Your task to perform on an android device: Open network settings Image 0: 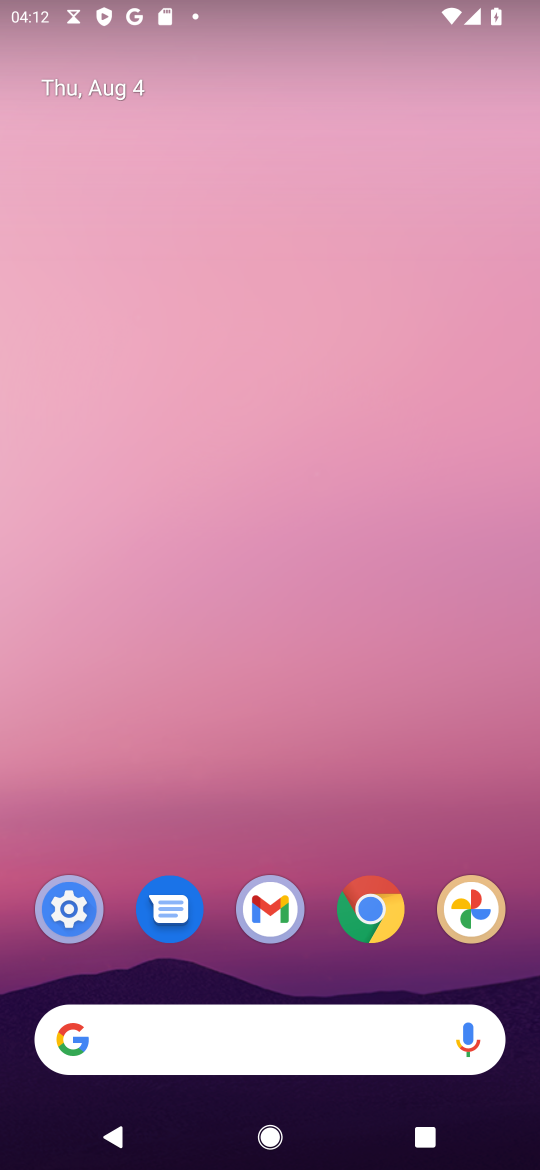
Step 0: click (72, 898)
Your task to perform on an android device: Open network settings Image 1: 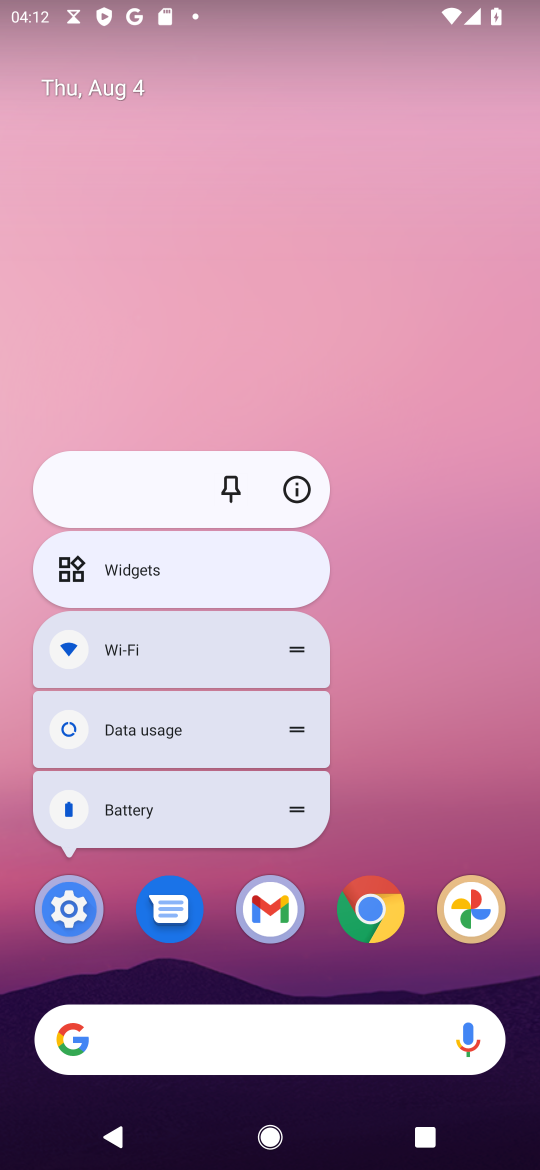
Step 1: click (63, 914)
Your task to perform on an android device: Open network settings Image 2: 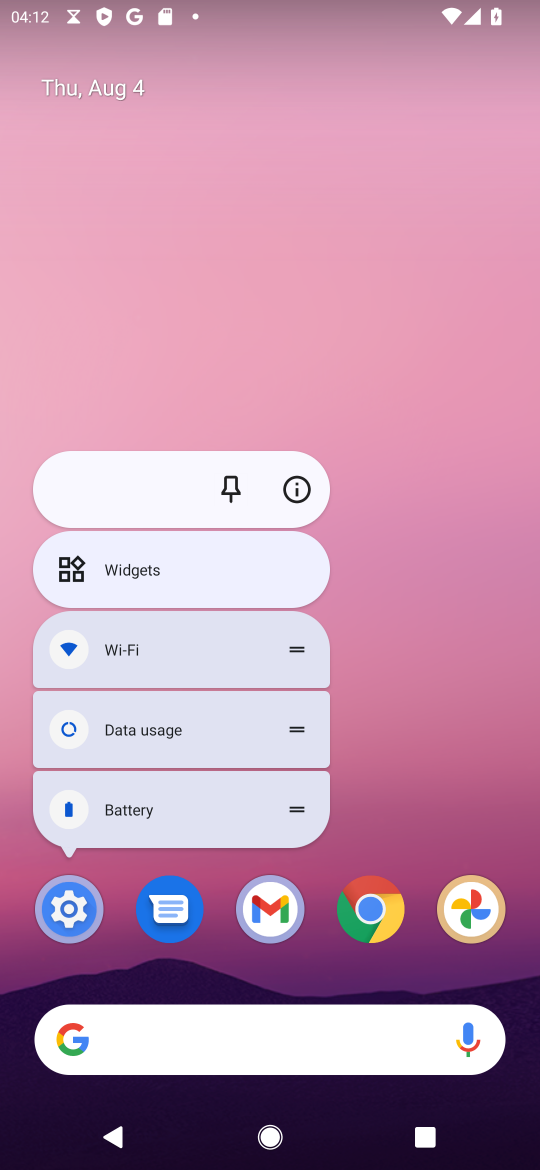
Step 2: click (63, 914)
Your task to perform on an android device: Open network settings Image 3: 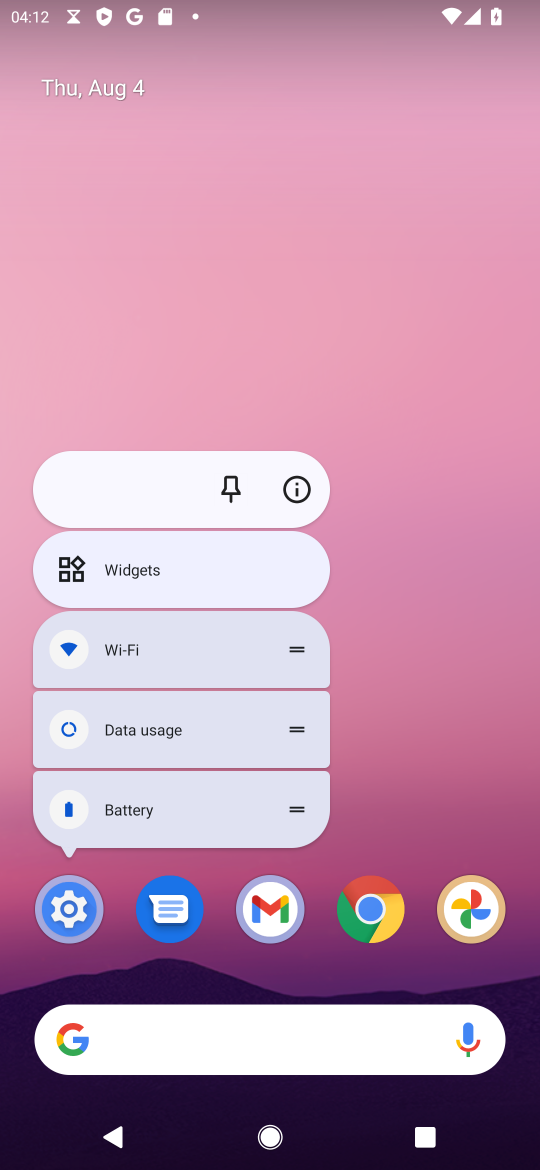
Step 3: click (58, 912)
Your task to perform on an android device: Open network settings Image 4: 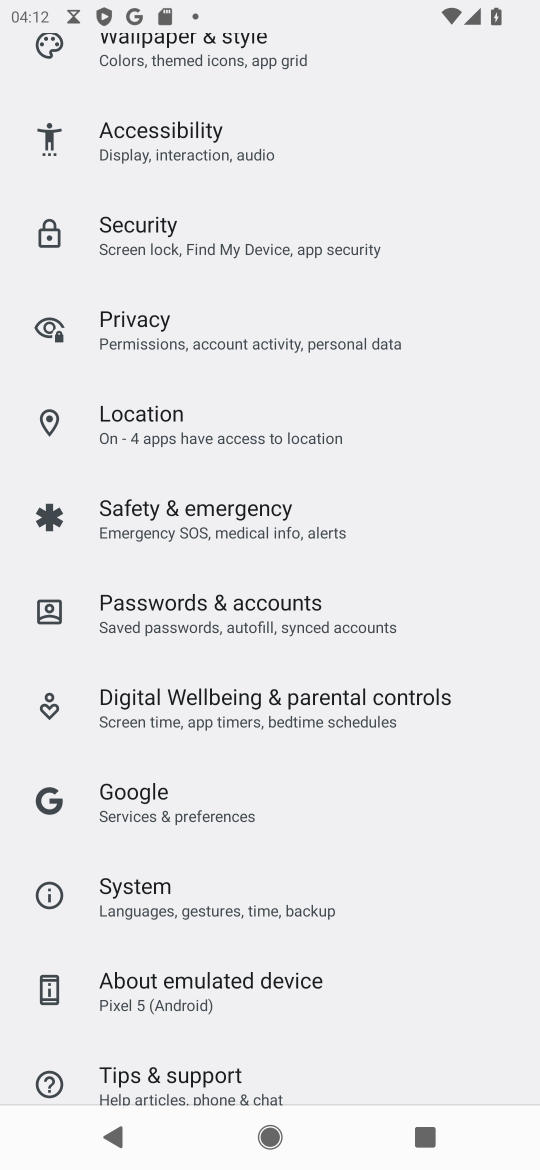
Step 4: drag from (408, 270) to (317, 1099)
Your task to perform on an android device: Open network settings Image 5: 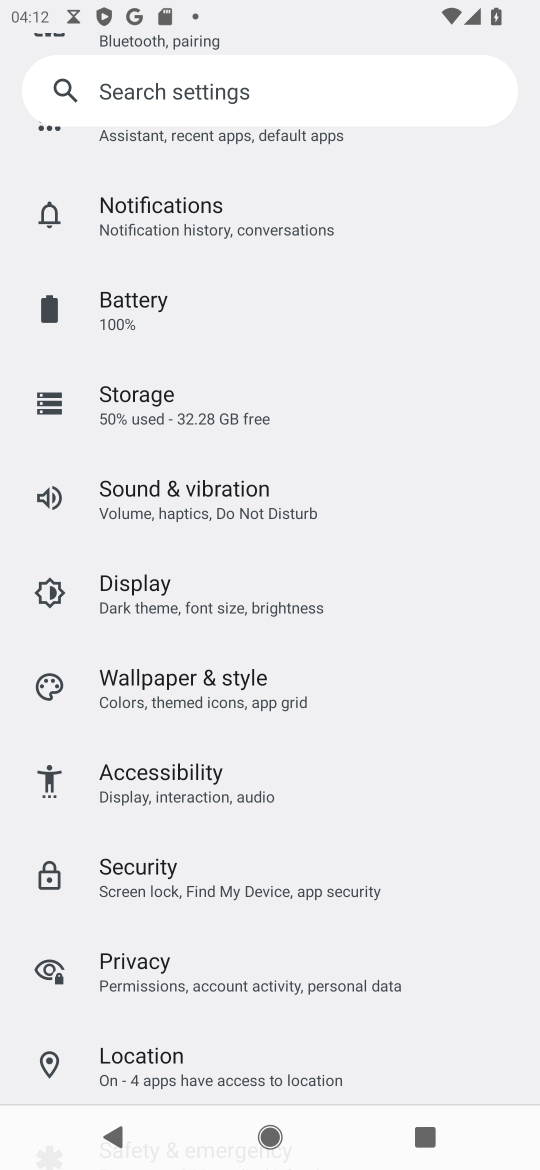
Step 5: drag from (307, 283) to (234, 1050)
Your task to perform on an android device: Open network settings Image 6: 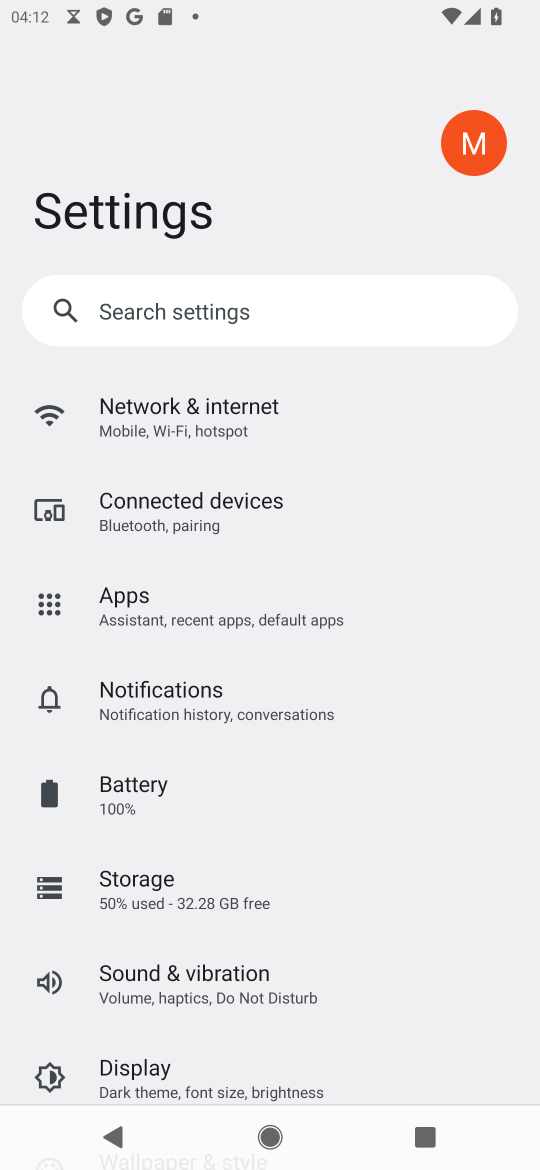
Step 6: click (240, 417)
Your task to perform on an android device: Open network settings Image 7: 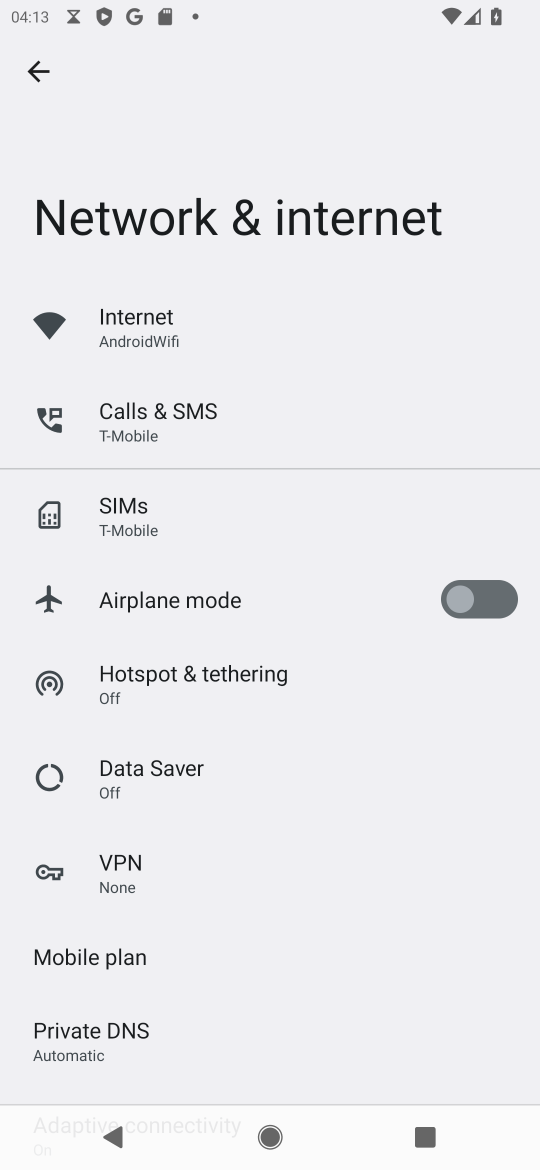
Step 7: task complete